Your task to perform on an android device: toggle airplane mode Image 0: 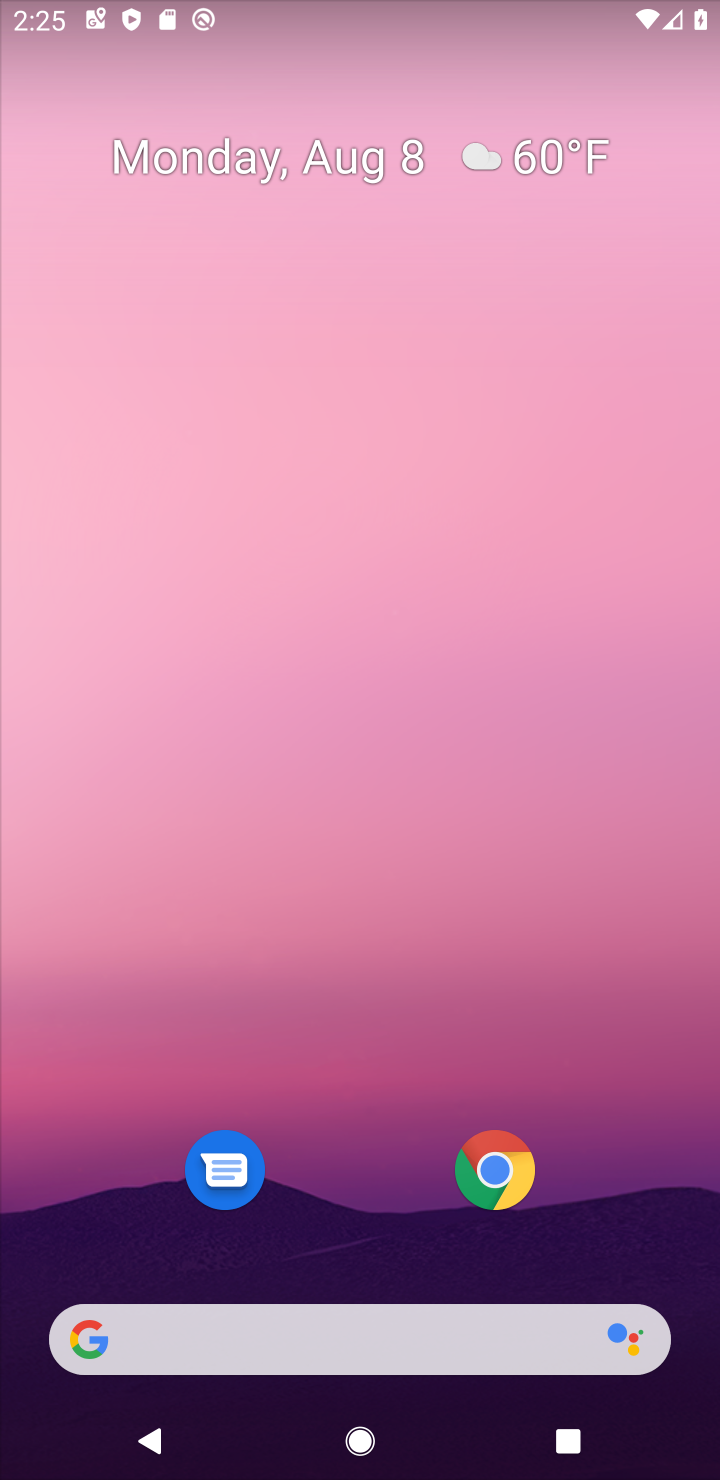
Step 0: drag from (338, 1136) to (295, 326)
Your task to perform on an android device: toggle airplane mode Image 1: 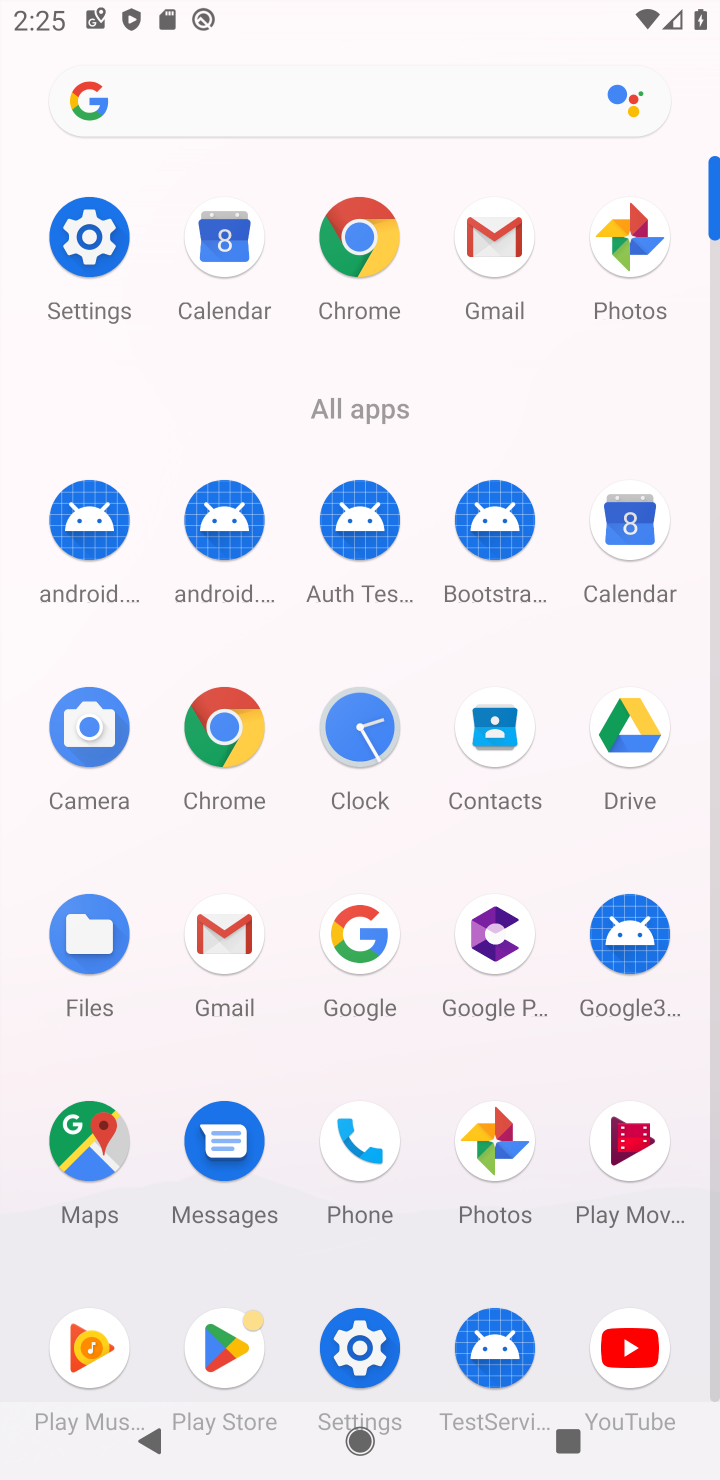
Step 1: click (345, 1325)
Your task to perform on an android device: toggle airplane mode Image 2: 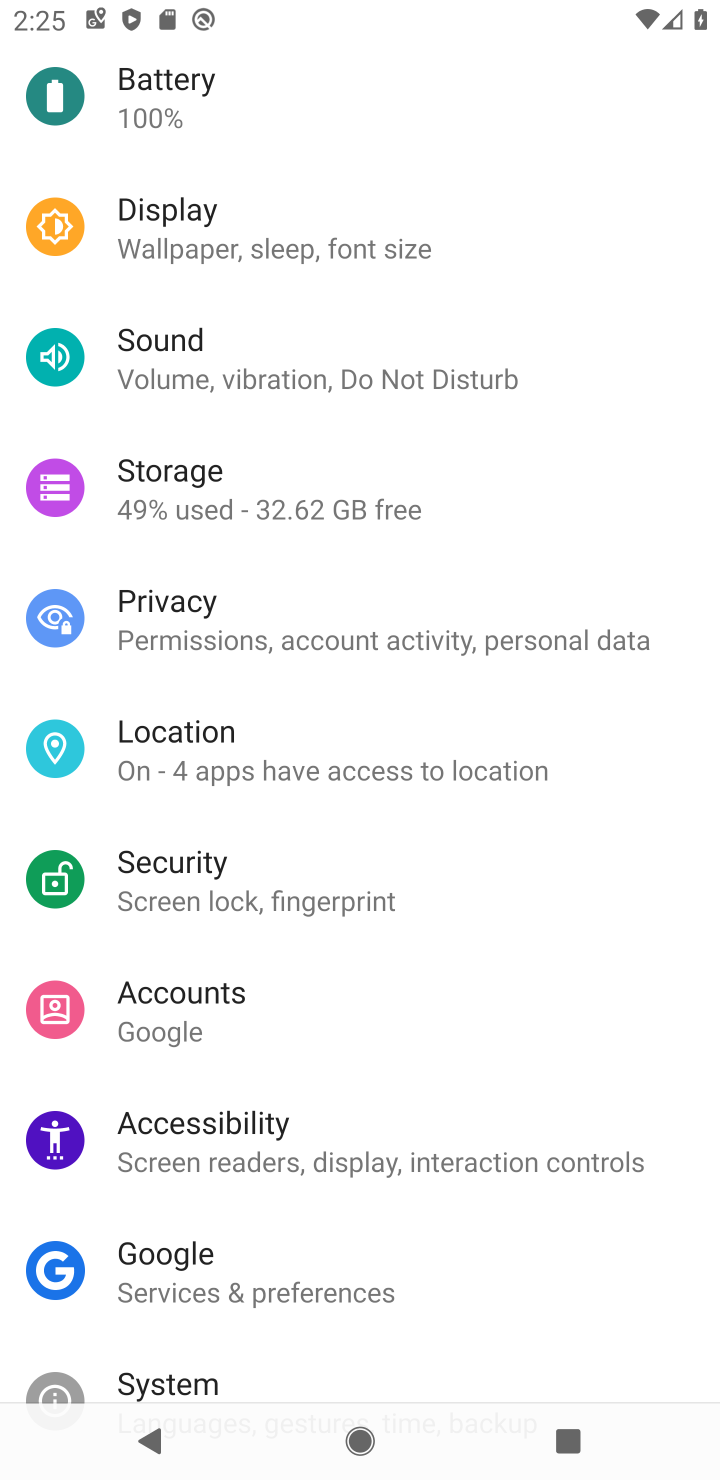
Step 2: drag from (335, 307) to (355, 957)
Your task to perform on an android device: toggle airplane mode Image 3: 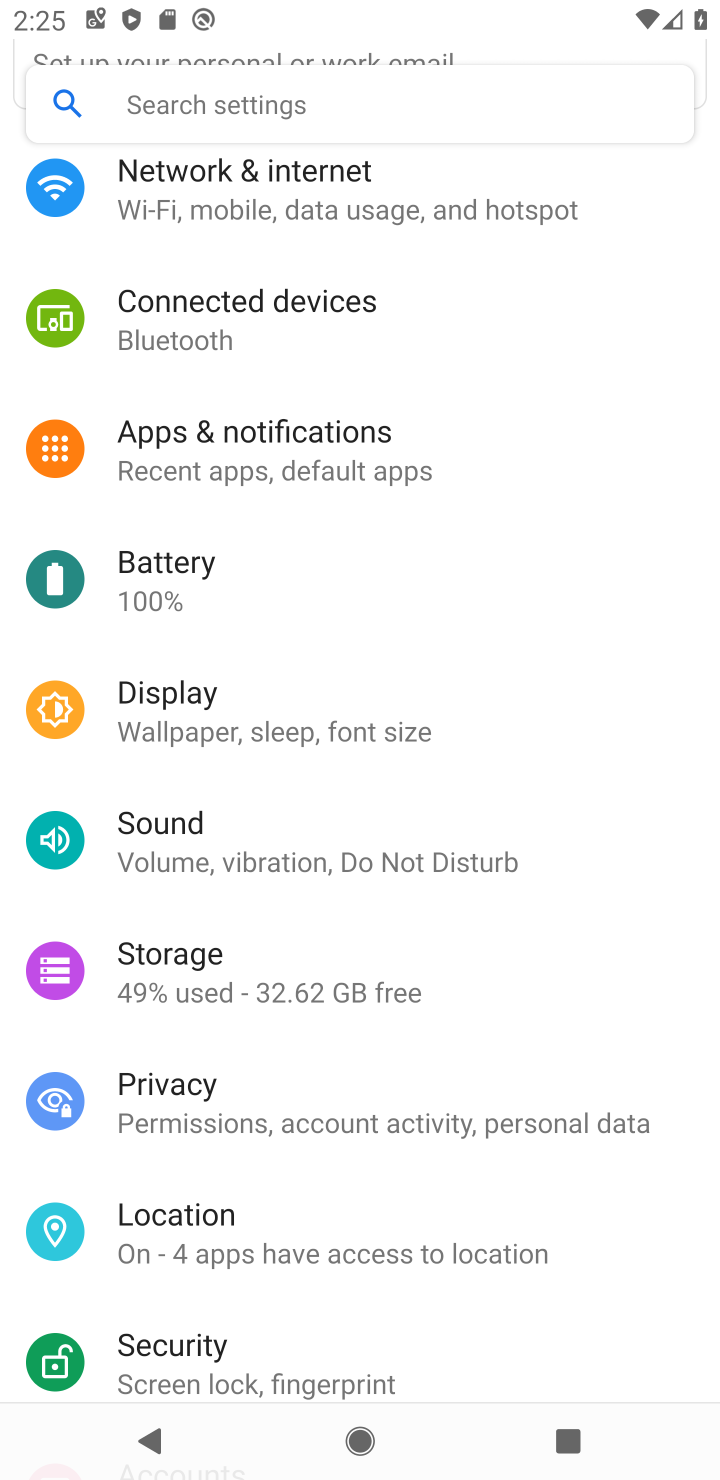
Step 3: click (284, 234)
Your task to perform on an android device: toggle airplane mode Image 4: 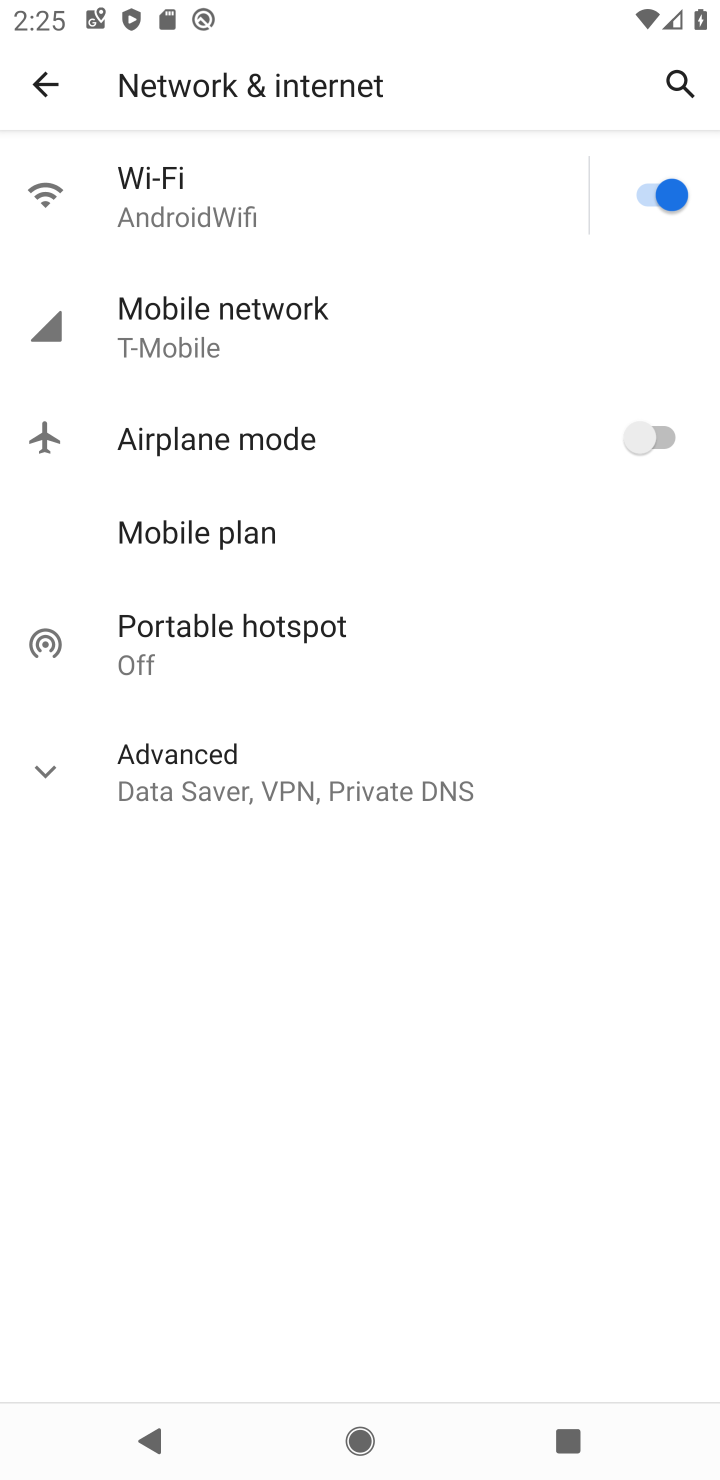
Step 4: click (677, 443)
Your task to perform on an android device: toggle airplane mode Image 5: 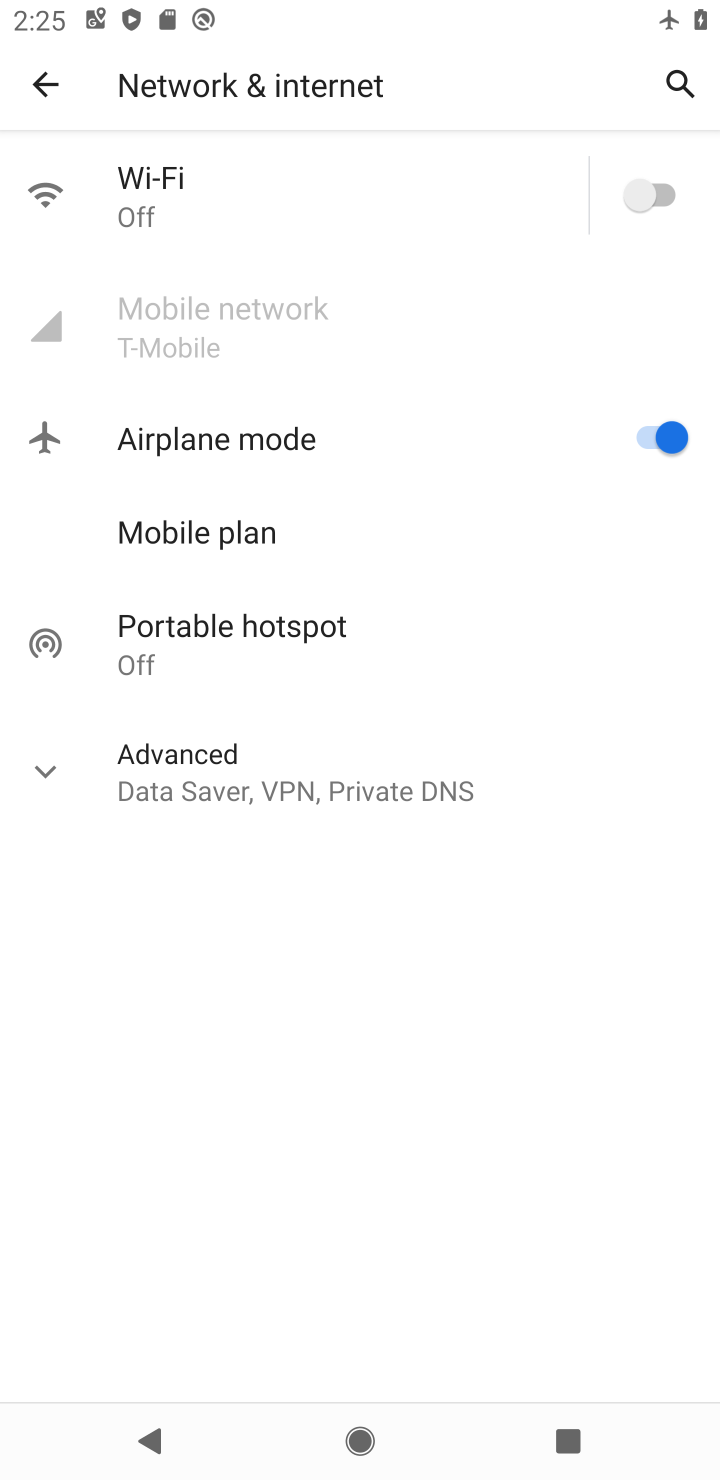
Step 5: task complete